Your task to perform on an android device: delete the emails in spam in the gmail app Image 0: 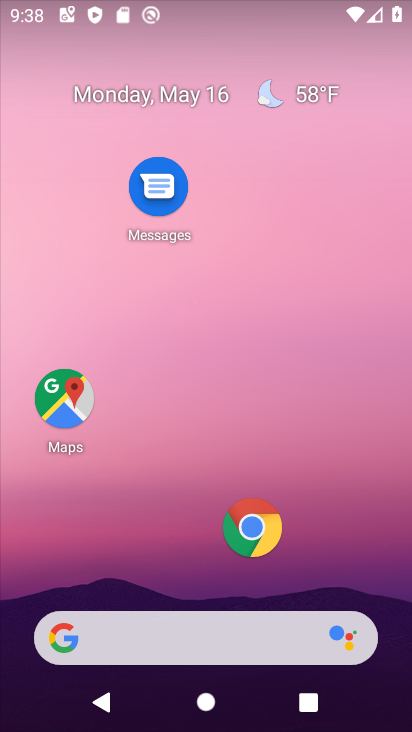
Step 0: drag from (163, 564) to (197, 107)
Your task to perform on an android device: delete the emails in spam in the gmail app Image 1: 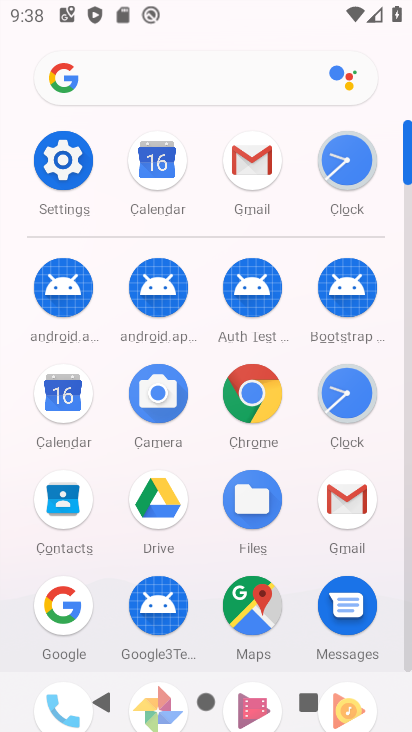
Step 1: click (251, 162)
Your task to perform on an android device: delete the emails in spam in the gmail app Image 2: 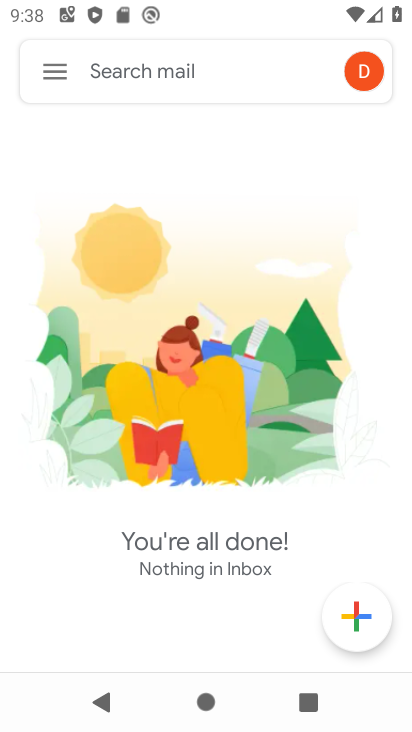
Step 2: click (63, 73)
Your task to perform on an android device: delete the emails in spam in the gmail app Image 3: 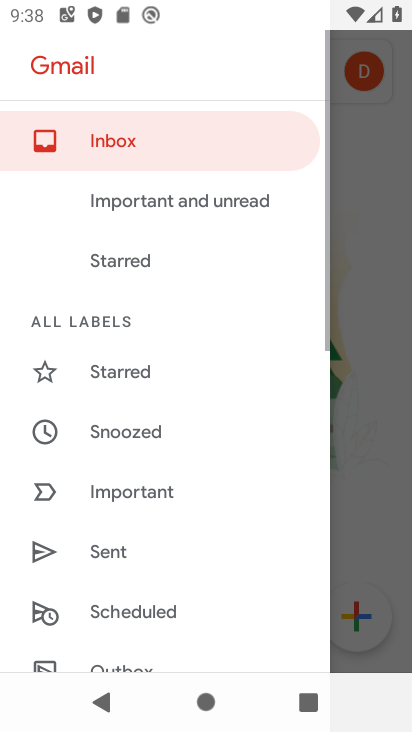
Step 3: drag from (164, 480) to (172, 83)
Your task to perform on an android device: delete the emails in spam in the gmail app Image 4: 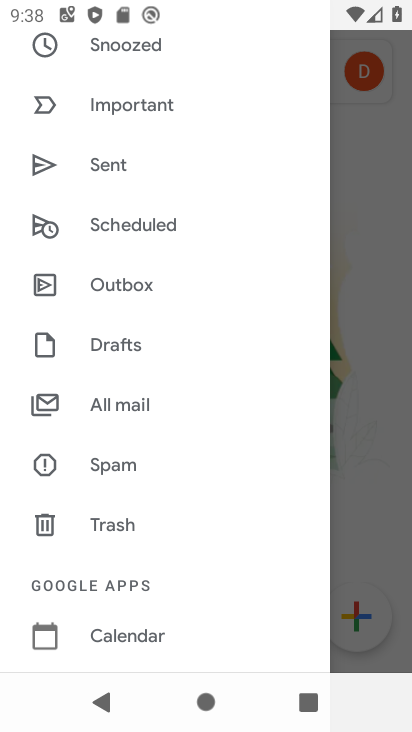
Step 4: click (125, 463)
Your task to perform on an android device: delete the emails in spam in the gmail app Image 5: 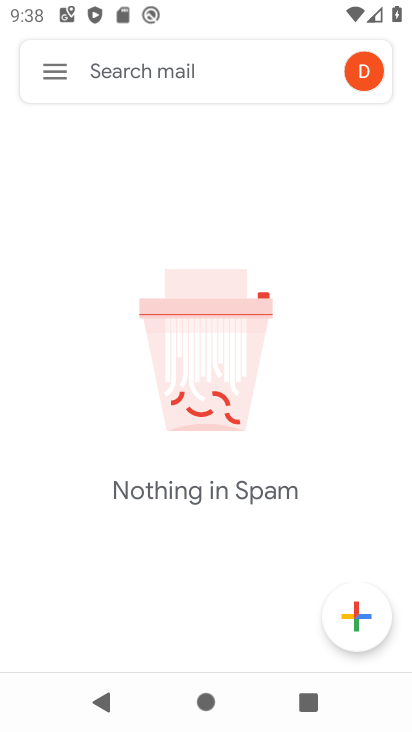
Step 5: task complete